Your task to perform on an android device: refresh tabs in the chrome app Image 0: 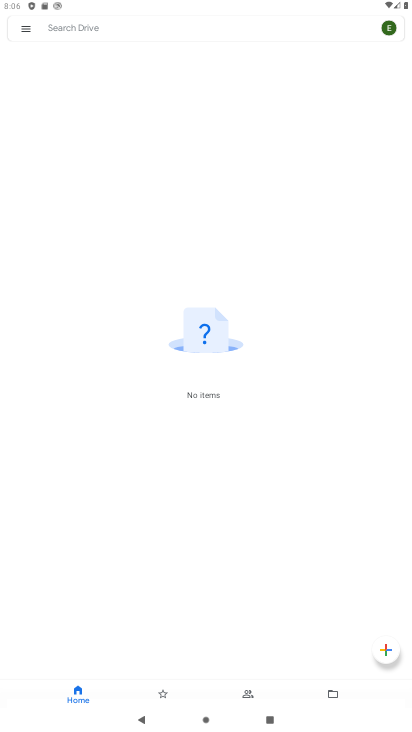
Step 0: press home button
Your task to perform on an android device: refresh tabs in the chrome app Image 1: 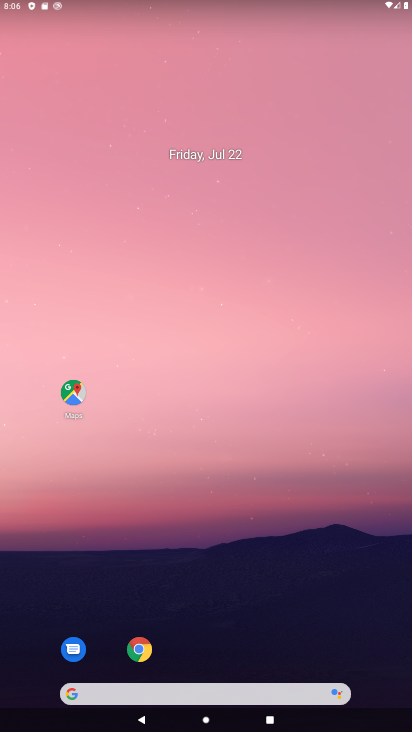
Step 1: drag from (202, 586) to (205, 172)
Your task to perform on an android device: refresh tabs in the chrome app Image 2: 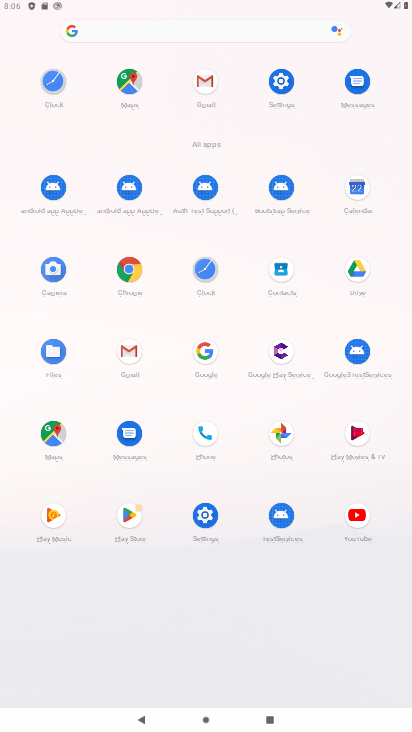
Step 2: press home button
Your task to perform on an android device: refresh tabs in the chrome app Image 3: 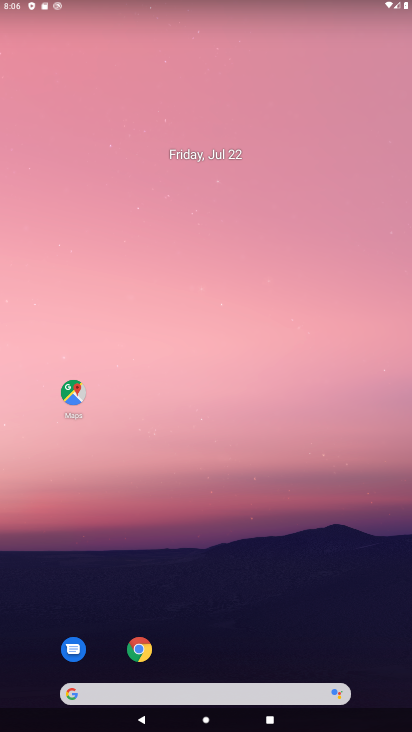
Step 3: click (144, 637)
Your task to perform on an android device: refresh tabs in the chrome app Image 4: 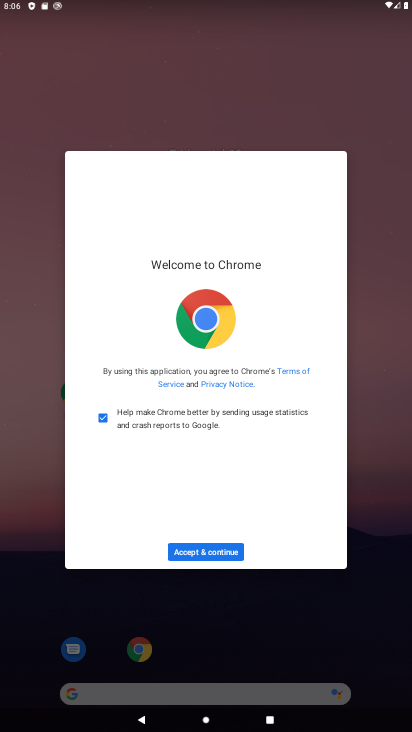
Step 4: click (254, 425)
Your task to perform on an android device: refresh tabs in the chrome app Image 5: 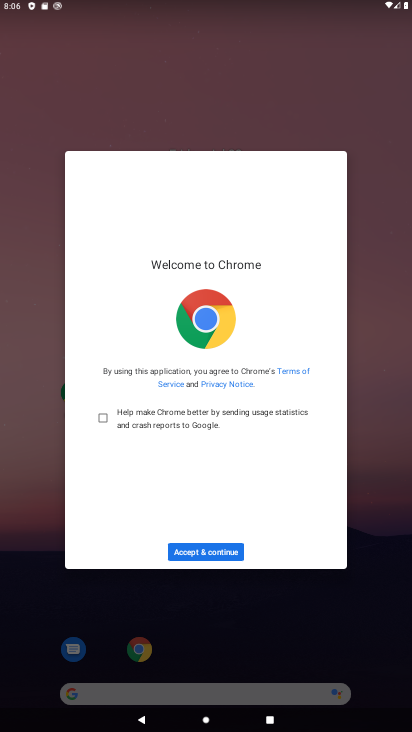
Step 5: click (217, 555)
Your task to perform on an android device: refresh tabs in the chrome app Image 6: 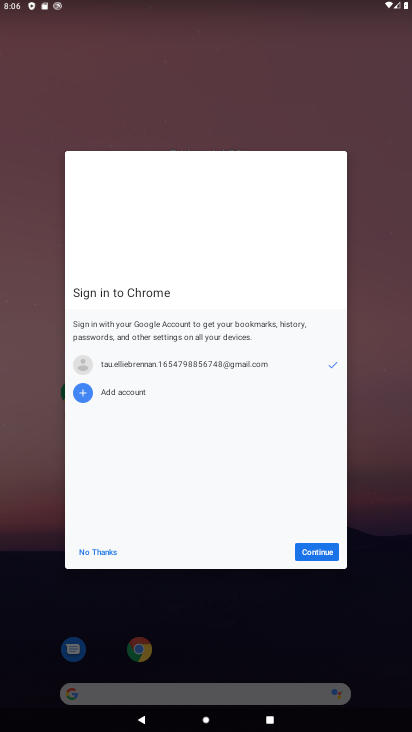
Step 6: click (324, 546)
Your task to perform on an android device: refresh tabs in the chrome app Image 7: 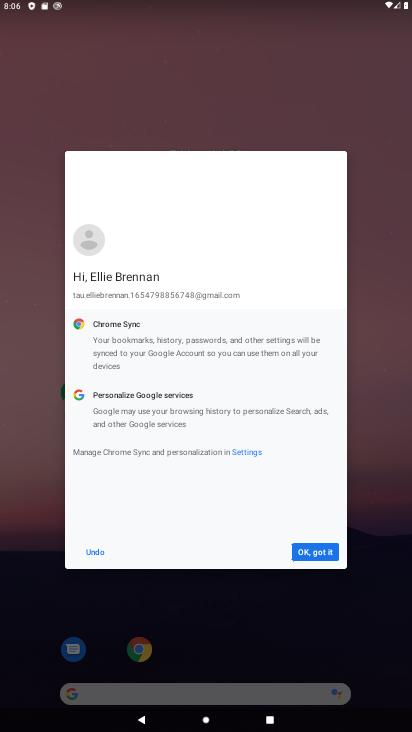
Step 7: click (317, 549)
Your task to perform on an android device: refresh tabs in the chrome app Image 8: 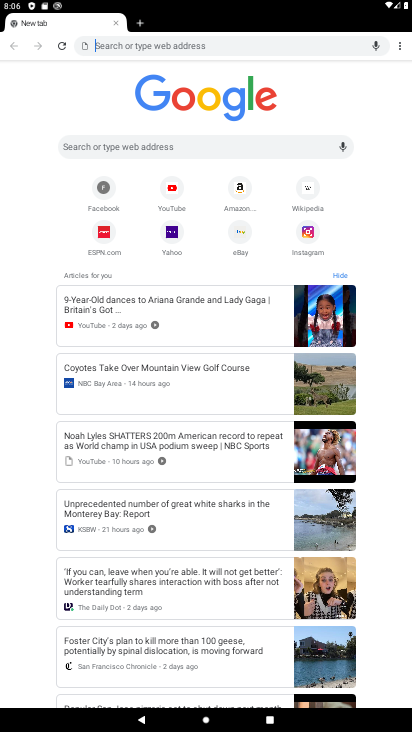
Step 8: task complete